Your task to perform on an android device: turn pop-ups on in chrome Image 0: 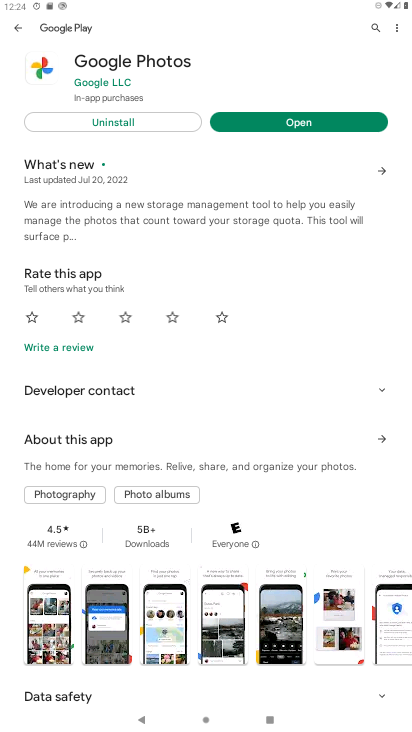
Step 0: press home button
Your task to perform on an android device: turn pop-ups on in chrome Image 1: 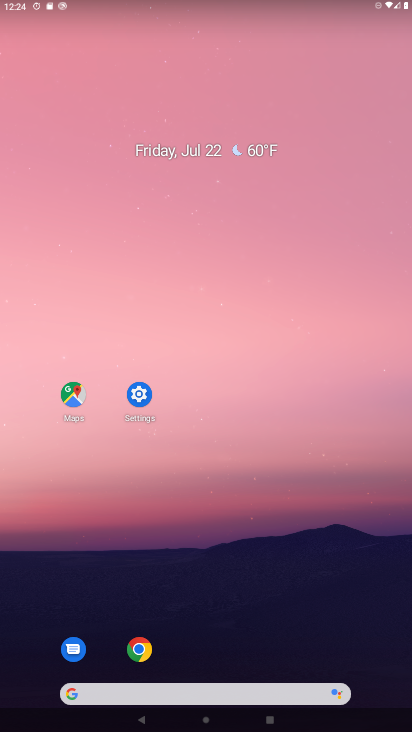
Step 1: click (135, 647)
Your task to perform on an android device: turn pop-ups on in chrome Image 2: 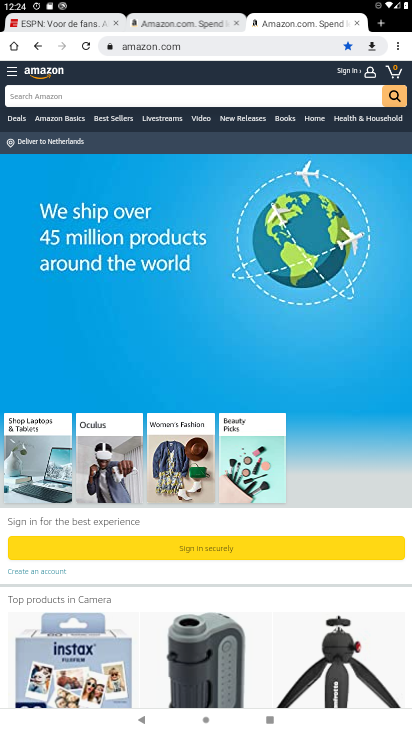
Step 2: click (395, 43)
Your task to perform on an android device: turn pop-ups on in chrome Image 3: 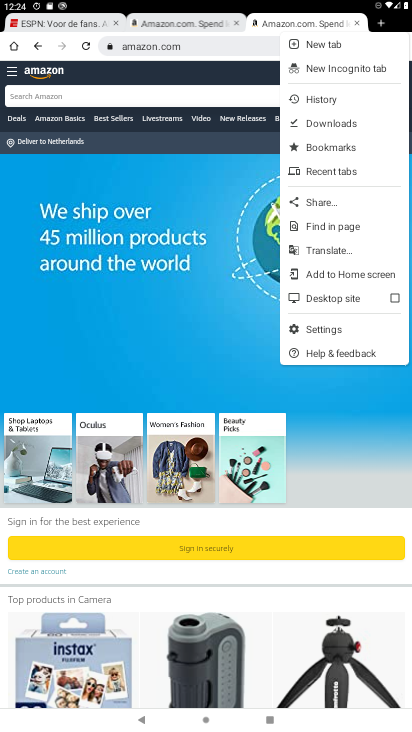
Step 3: click (314, 324)
Your task to perform on an android device: turn pop-ups on in chrome Image 4: 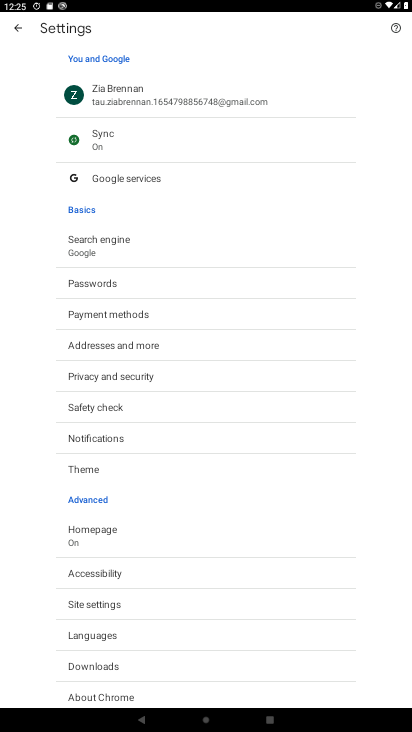
Step 4: click (88, 602)
Your task to perform on an android device: turn pop-ups on in chrome Image 5: 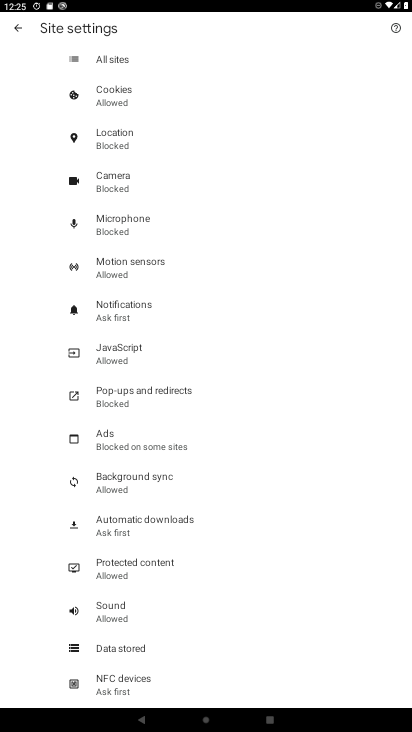
Step 5: click (128, 393)
Your task to perform on an android device: turn pop-ups on in chrome Image 6: 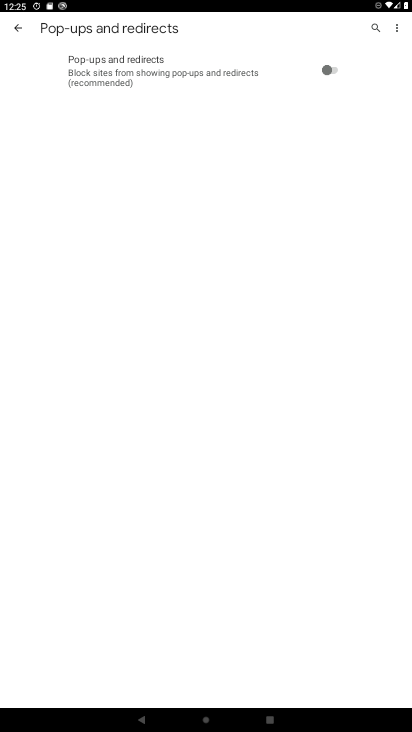
Step 6: click (336, 67)
Your task to perform on an android device: turn pop-ups on in chrome Image 7: 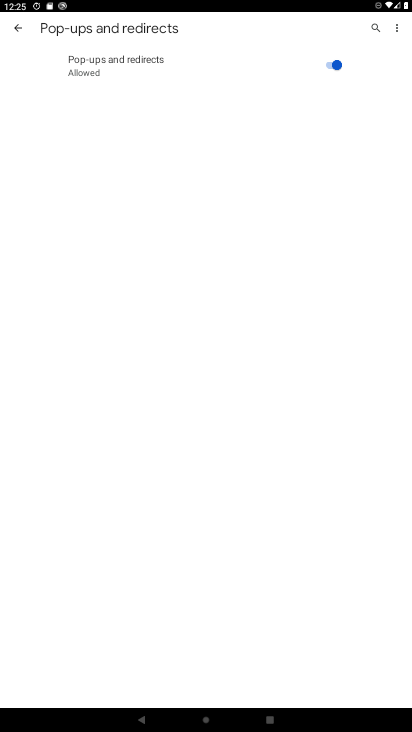
Step 7: task complete